Your task to perform on an android device: snooze an email in the gmail app Image 0: 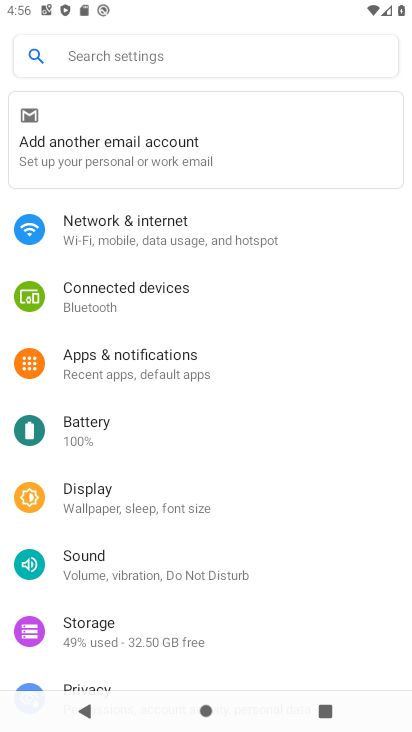
Step 0: press home button
Your task to perform on an android device: snooze an email in the gmail app Image 1: 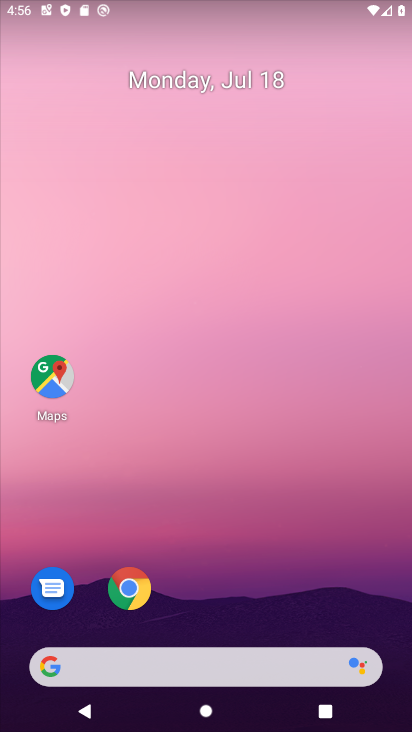
Step 1: drag from (312, 594) to (188, 4)
Your task to perform on an android device: snooze an email in the gmail app Image 2: 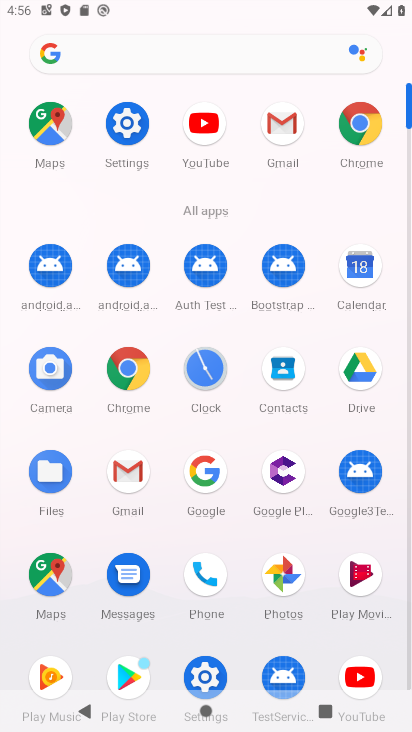
Step 2: click (278, 130)
Your task to perform on an android device: snooze an email in the gmail app Image 3: 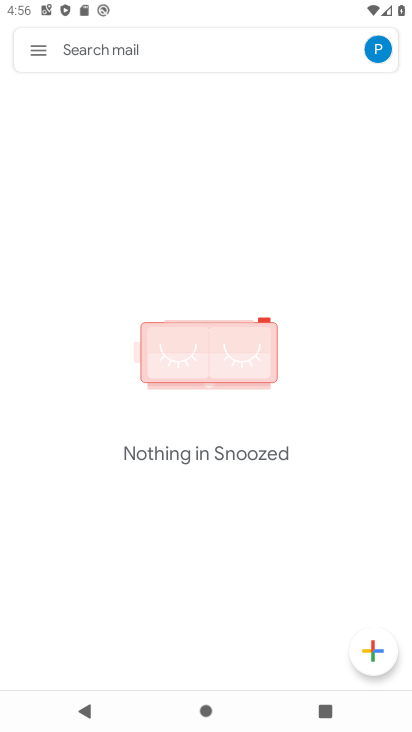
Step 3: click (31, 45)
Your task to perform on an android device: snooze an email in the gmail app Image 4: 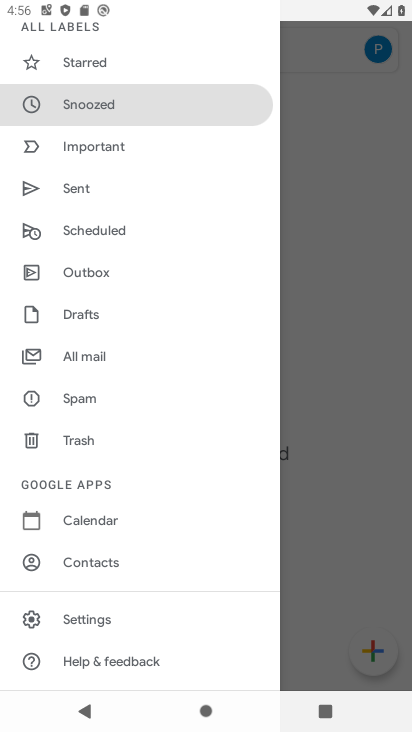
Step 4: click (110, 349)
Your task to perform on an android device: snooze an email in the gmail app Image 5: 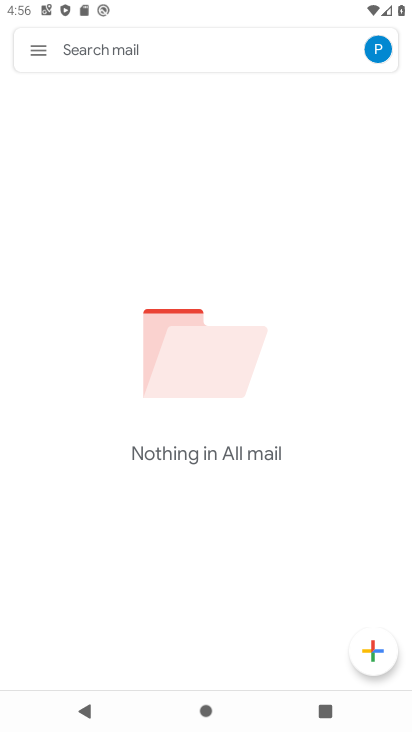
Step 5: task complete